Your task to perform on an android device: Open internet settings Image 0: 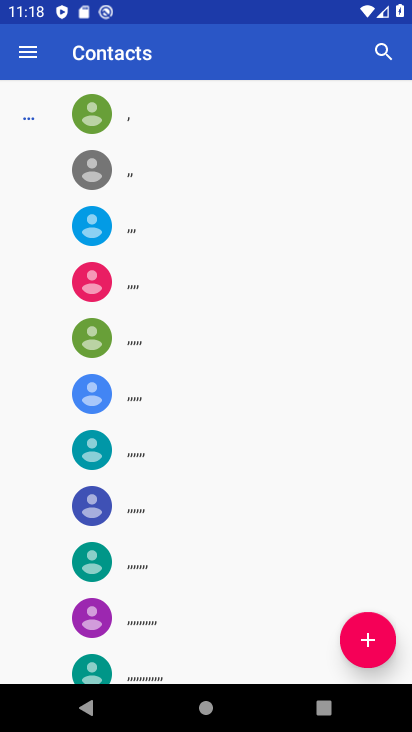
Step 0: press home button
Your task to perform on an android device: Open internet settings Image 1: 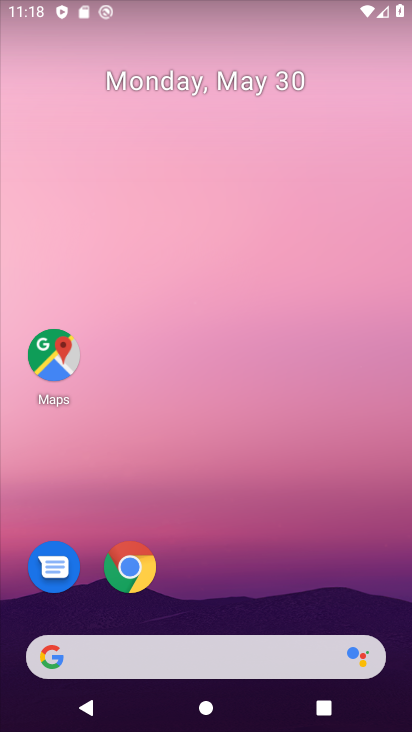
Step 1: drag from (405, 609) to (336, 204)
Your task to perform on an android device: Open internet settings Image 2: 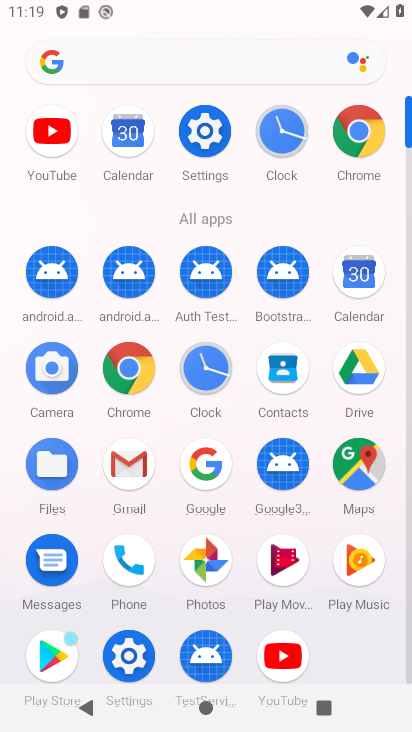
Step 2: click (143, 657)
Your task to perform on an android device: Open internet settings Image 3: 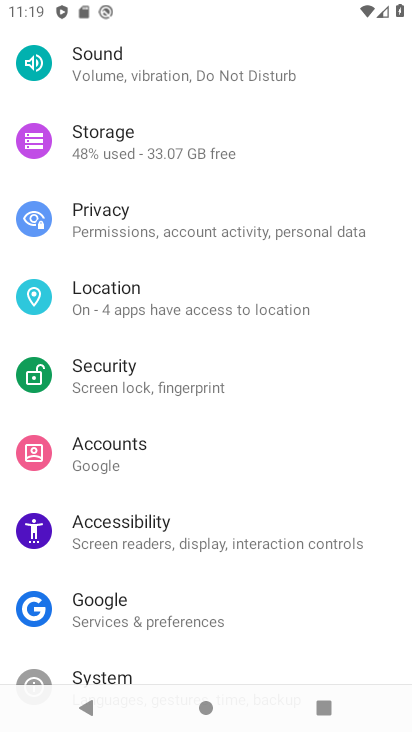
Step 3: drag from (266, 639) to (315, 304)
Your task to perform on an android device: Open internet settings Image 4: 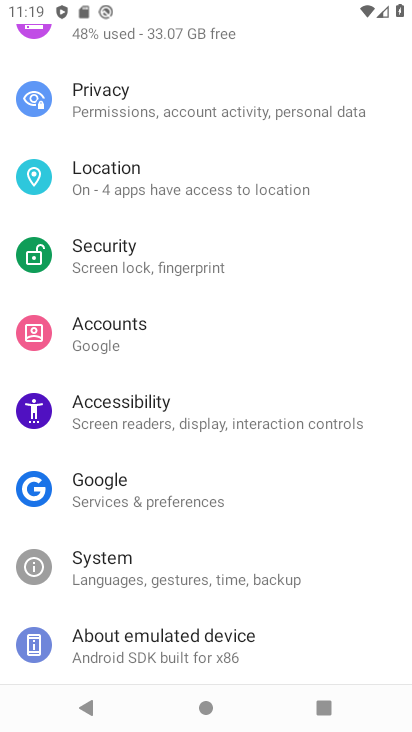
Step 4: drag from (223, 217) to (272, 630)
Your task to perform on an android device: Open internet settings Image 5: 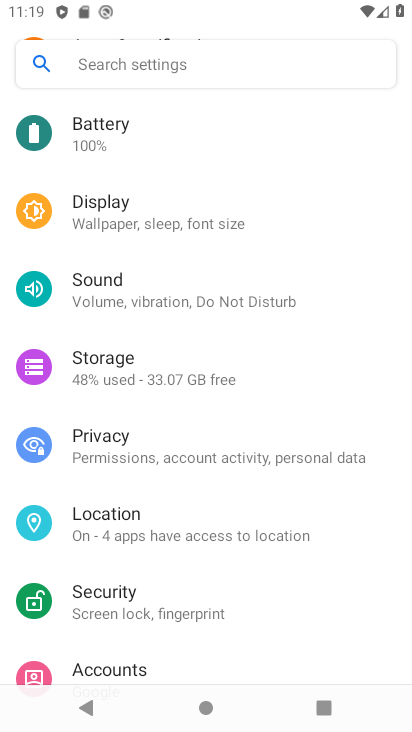
Step 5: drag from (226, 175) to (297, 612)
Your task to perform on an android device: Open internet settings Image 6: 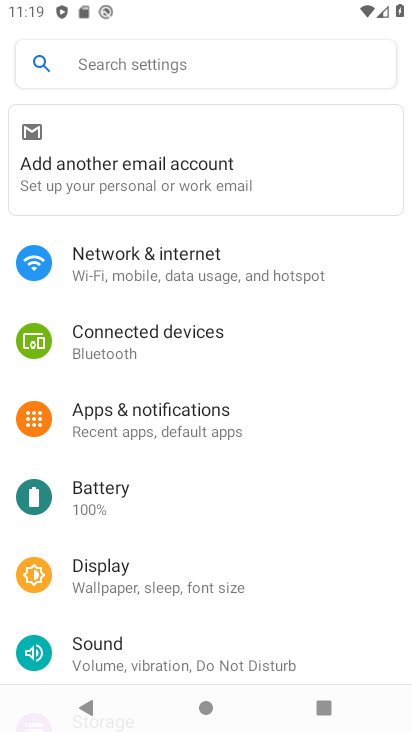
Step 6: click (202, 278)
Your task to perform on an android device: Open internet settings Image 7: 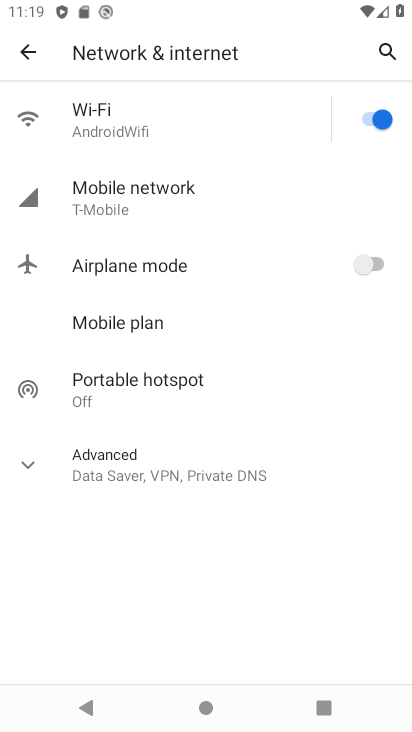
Step 7: task complete